Your task to perform on an android device: toggle translation in the chrome app Image 0: 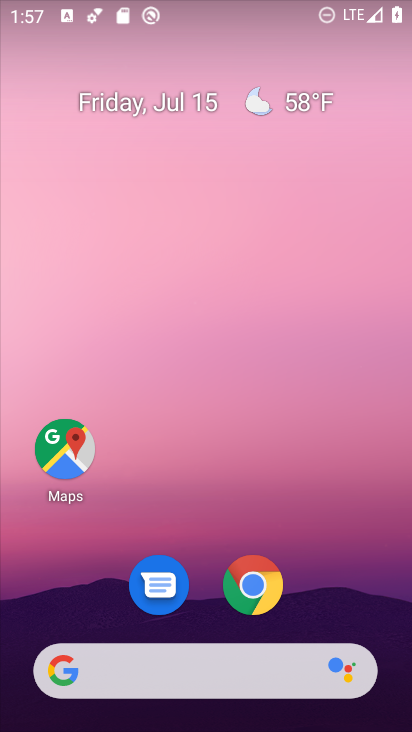
Step 0: click (278, 587)
Your task to perform on an android device: toggle translation in the chrome app Image 1: 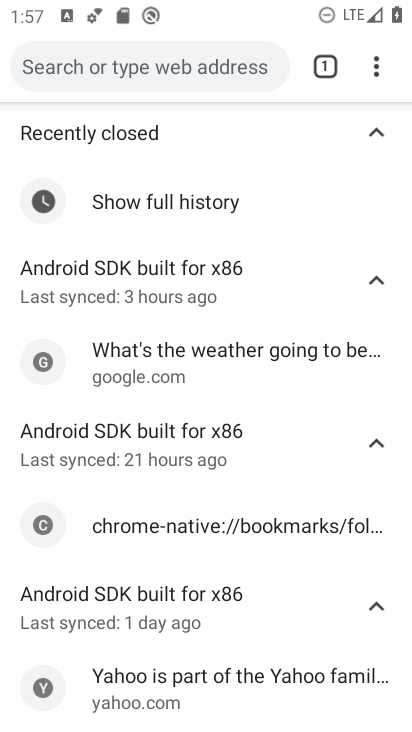
Step 1: click (376, 67)
Your task to perform on an android device: toggle translation in the chrome app Image 2: 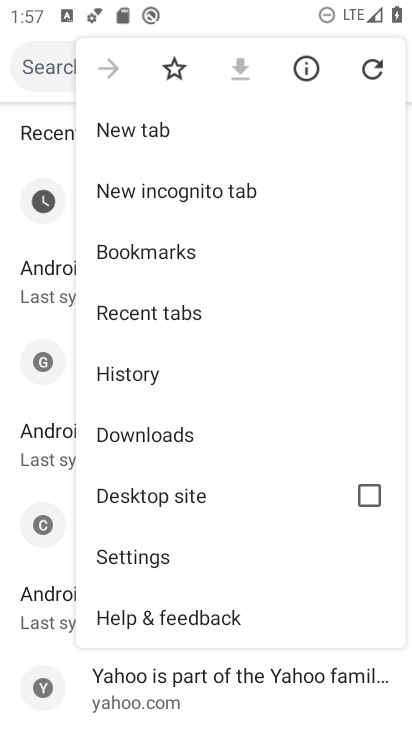
Step 2: click (148, 549)
Your task to perform on an android device: toggle translation in the chrome app Image 3: 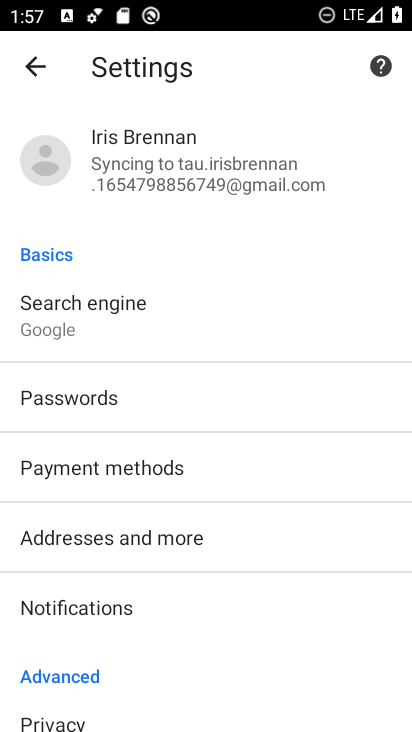
Step 3: drag from (282, 644) to (236, 169)
Your task to perform on an android device: toggle translation in the chrome app Image 4: 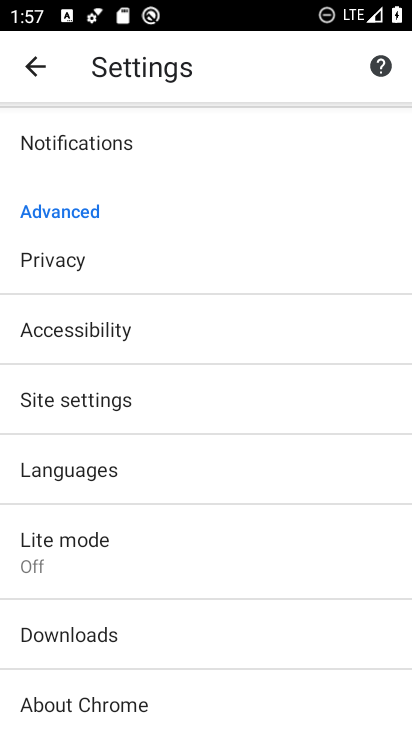
Step 4: click (204, 456)
Your task to perform on an android device: toggle translation in the chrome app Image 5: 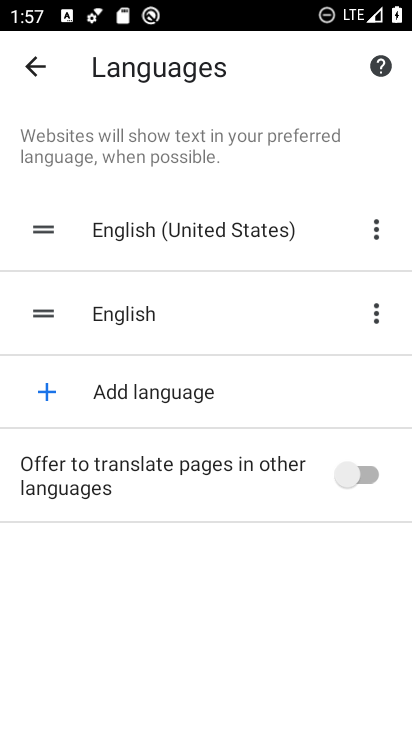
Step 5: click (364, 471)
Your task to perform on an android device: toggle translation in the chrome app Image 6: 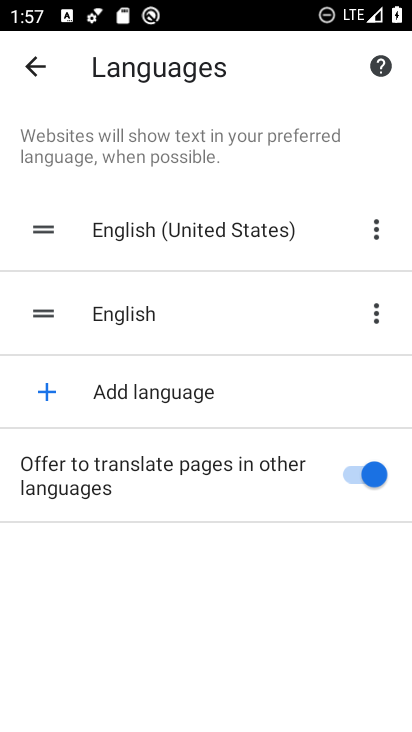
Step 6: task complete